Your task to perform on an android device: toggle airplane mode Image 0: 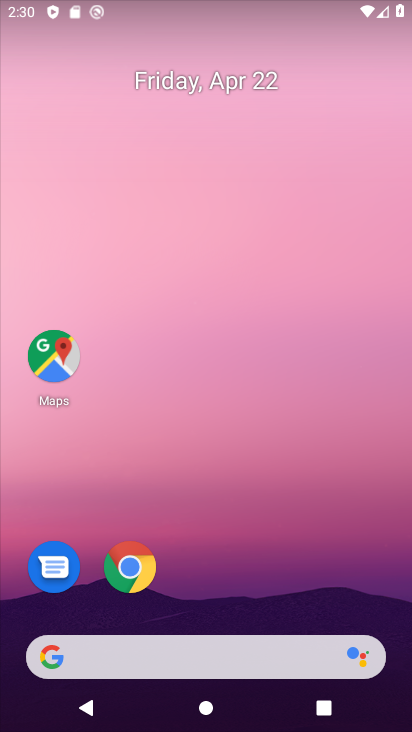
Step 0: drag from (125, 365) to (101, 195)
Your task to perform on an android device: toggle airplane mode Image 1: 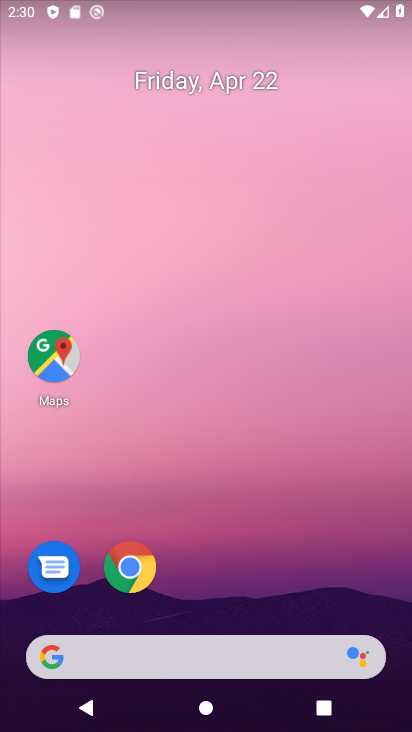
Step 1: drag from (274, 675) to (188, 276)
Your task to perform on an android device: toggle airplane mode Image 2: 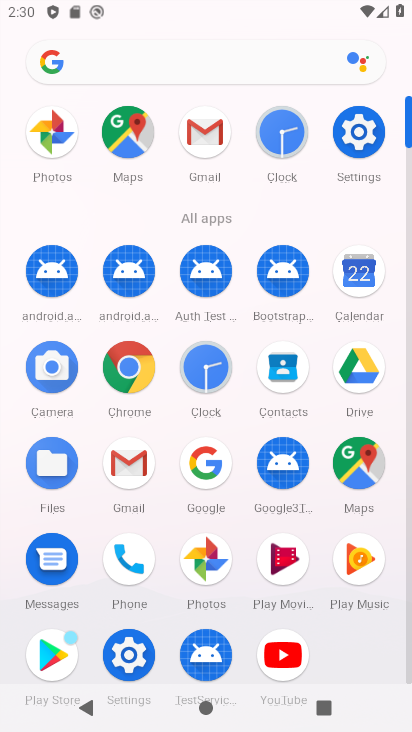
Step 2: click (371, 133)
Your task to perform on an android device: toggle airplane mode Image 3: 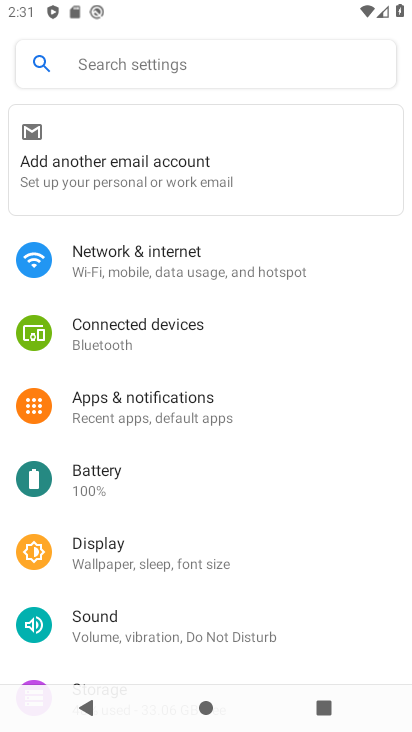
Step 3: click (104, 417)
Your task to perform on an android device: toggle airplane mode Image 4: 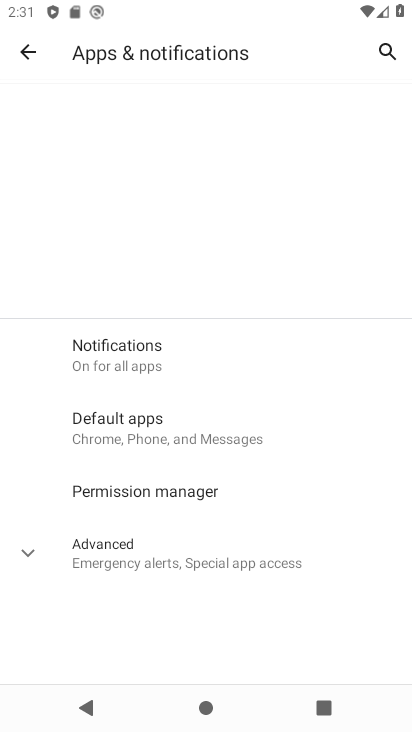
Step 4: click (120, 261)
Your task to perform on an android device: toggle airplane mode Image 5: 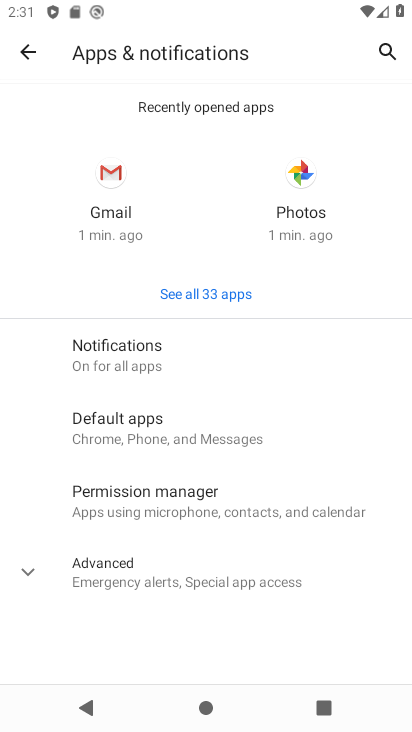
Step 5: click (21, 44)
Your task to perform on an android device: toggle airplane mode Image 6: 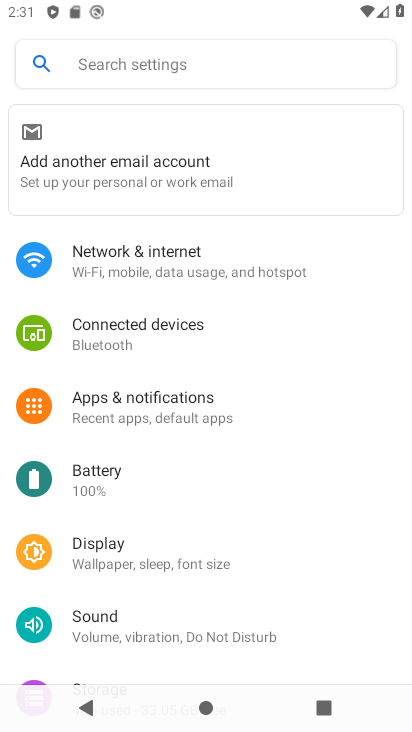
Step 6: click (152, 269)
Your task to perform on an android device: toggle airplane mode Image 7: 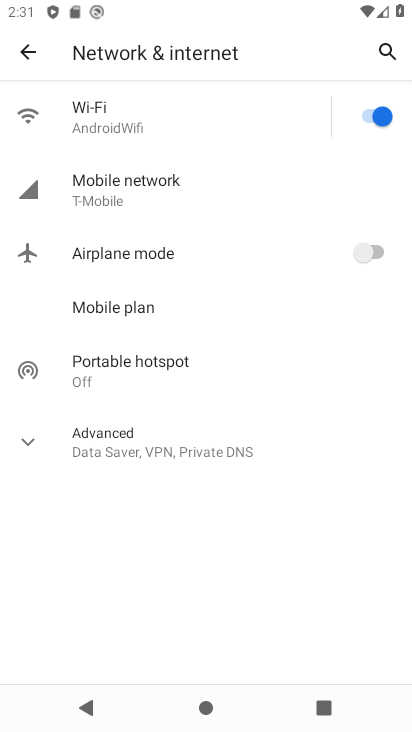
Step 7: click (357, 249)
Your task to perform on an android device: toggle airplane mode Image 8: 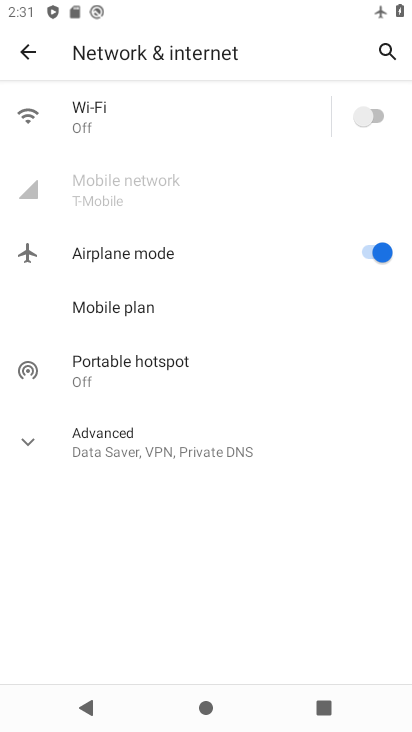
Step 8: task complete